Your task to perform on an android device: turn smart compose on in the gmail app Image 0: 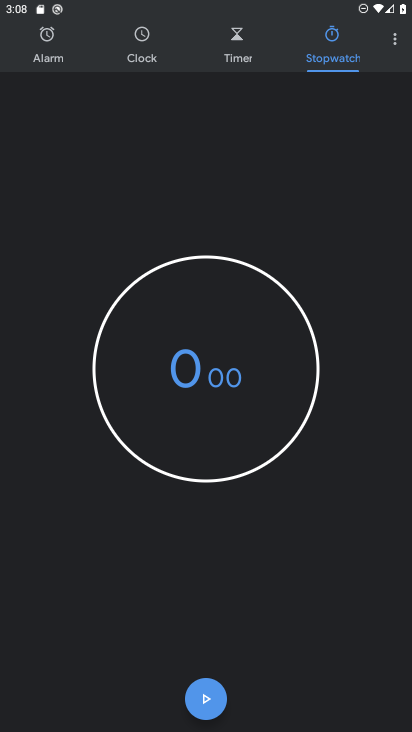
Step 0: press home button
Your task to perform on an android device: turn smart compose on in the gmail app Image 1: 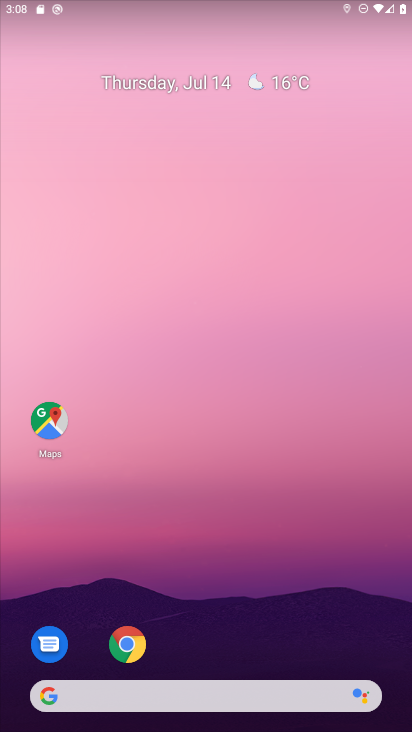
Step 1: drag from (232, 638) to (237, 263)
Your task to perform on an android device: turn smart compose on in the gmail app Image 2: 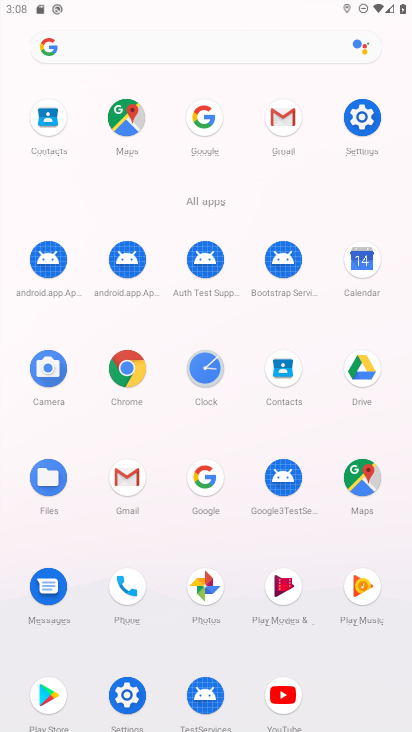
Step 2: drag from (219, 143) to (228, 187)
Your task to perform on an android device: turn smart compose on in the gmail app Image 3: 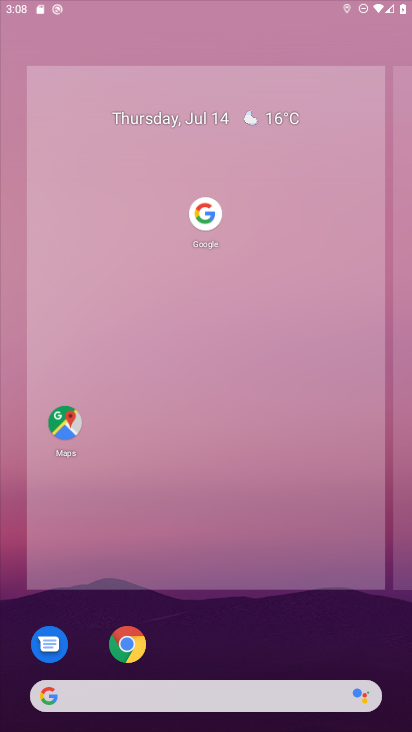
Step 3: drag from (220, 575) to (239, 177)
Your task to perform on an android device: turn smart compose on in the gmail app Image 4: 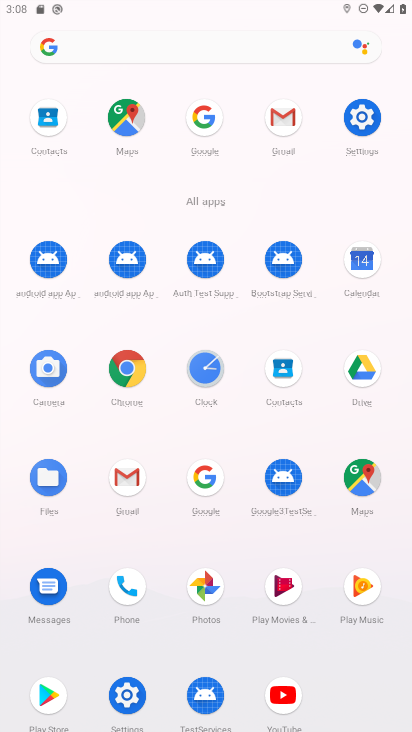
Step 4: click (284, 137)
Your task to perform on an android device: turn smart compose on in the gmail app Image 5: 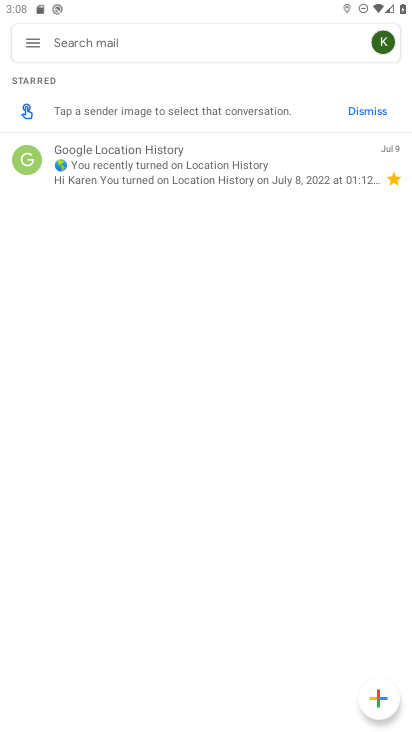
Step 5: click (22, 45)
Your task to perform on an android device: turn smart compose on in the gmail app Image 6: 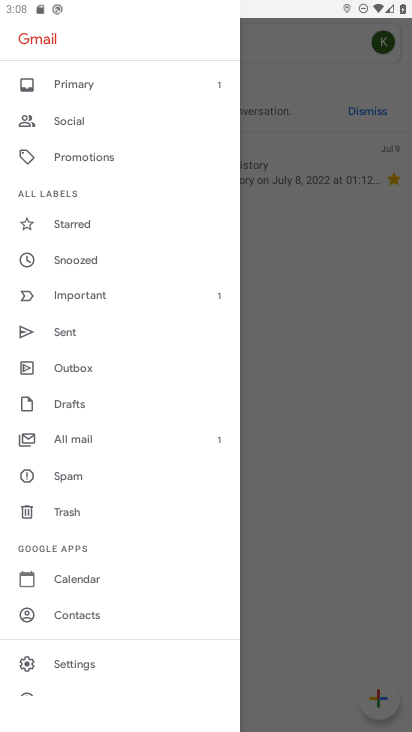
Step 6: click (86, 661)
Your task to perform on an android device: turn smart compose on in the gmail app Image 7: 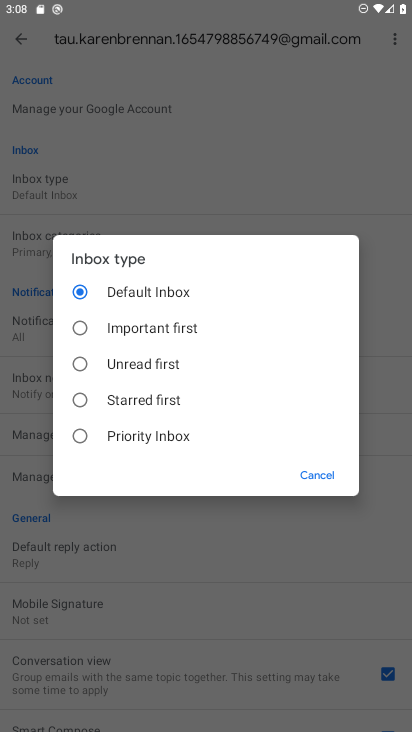
Step 7: click (315, 479)
Your task to perform on an android device: turn smart compose on in the gmail app Image 8: 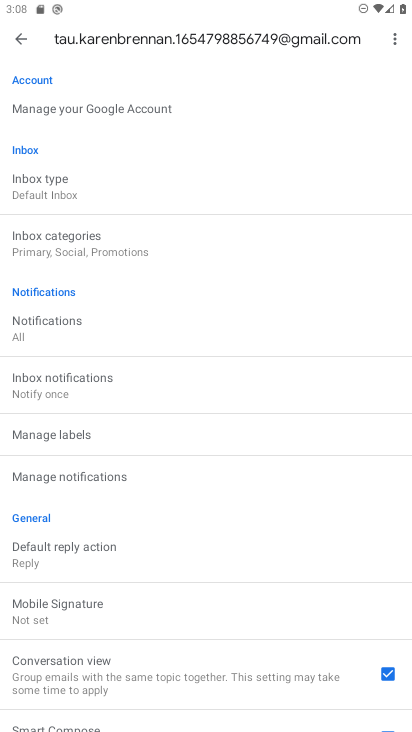
Step 8: task complete